Your task to perform on an android device: toggle pop-ups in chrome Image 0: 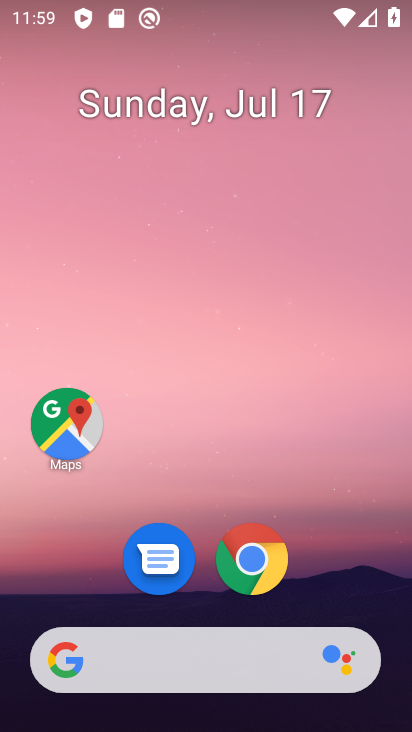
Step 0: click (259, 565)
Your task to perform on an android device: toggle pop-ups in chrome Image 1: 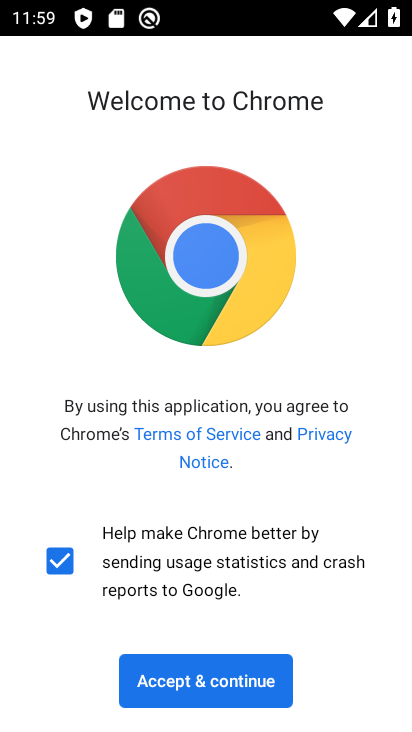
Step 1: click (185, 668)
Your task to perform on an android device: toggle pop-ups in chrome Image 2: 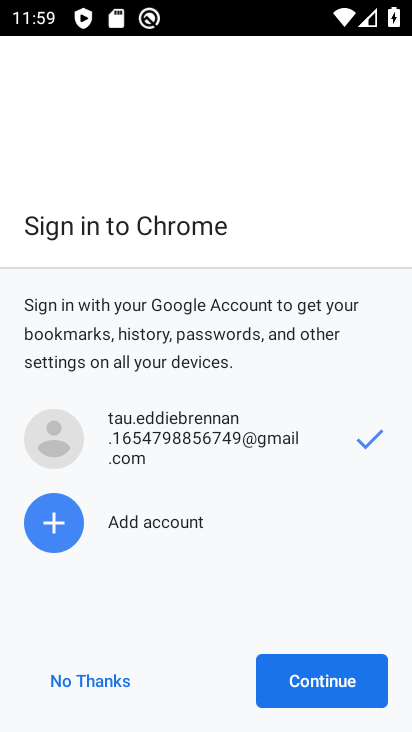
Step 2: click (338, 679)
Your task to perform on an android device: toggle pop-ups in chrome Image 3: 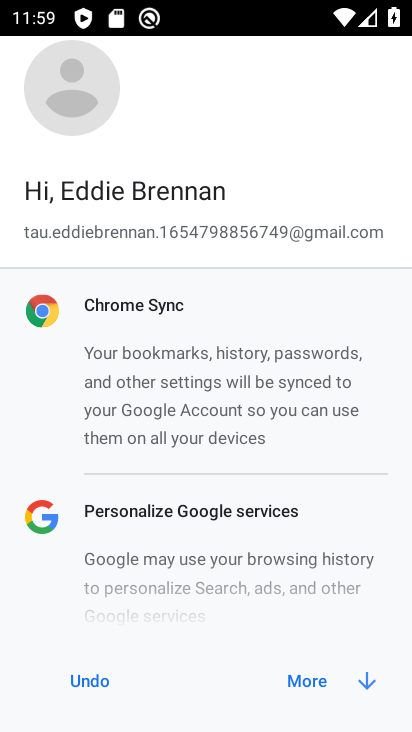
Step 3: click (338, 679)
Your task to perform on an android device: toggle pop-ups in chrome Image 4: 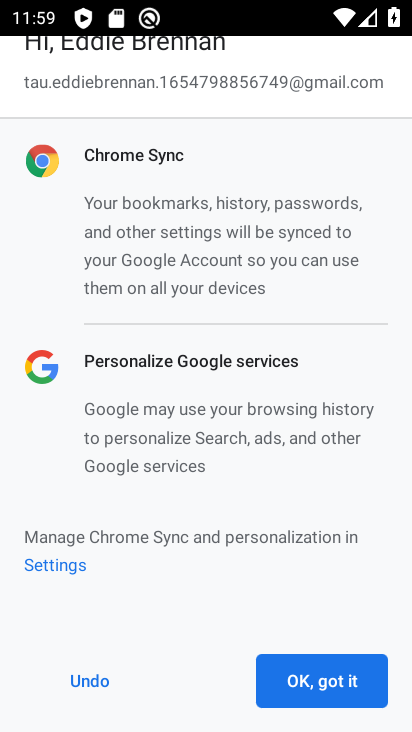
Step 4: click (338, 679)
Your task to perform on an android device: toggle pop-ups in chrome Image 5: 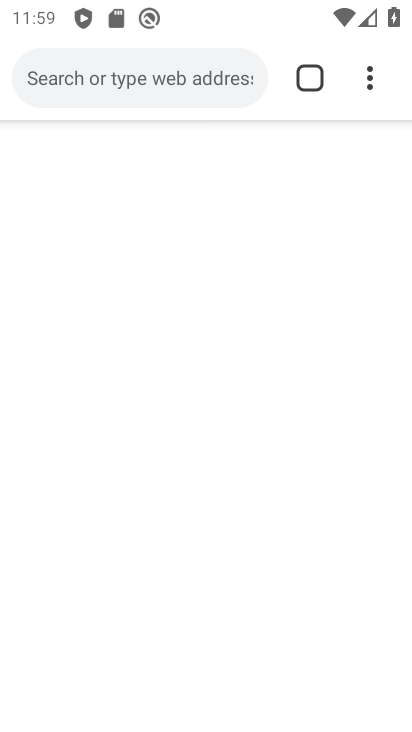
Step 5: drag from (365, 77) to (130, 635)
Your task to perform on an android device: toggle pop-ups in chrome Image 6: 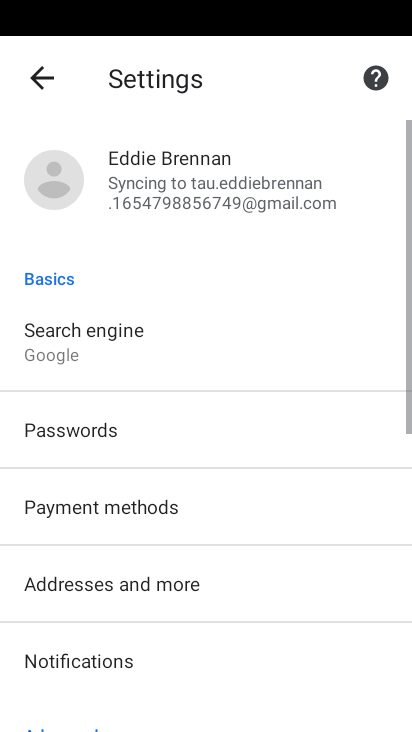
Step 6: drag from (137, 647) to (232, 116)
Your task to perform on an android device: toggle pop-ups in chrome Image 7: 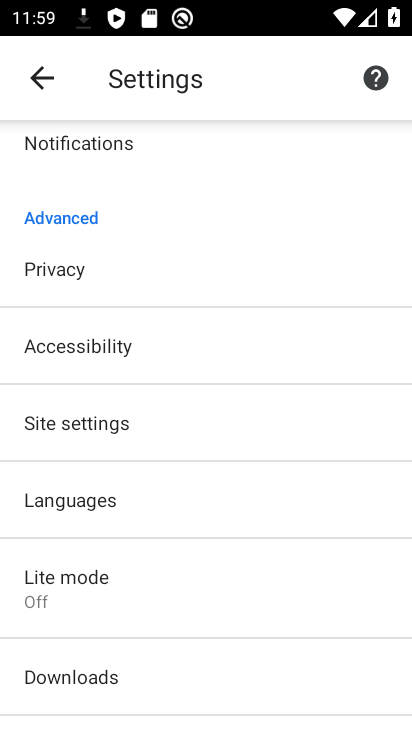
Step 7: click (85, 428)
Your task to perform on an android device: toggle pop-ups in chrome Image 8: 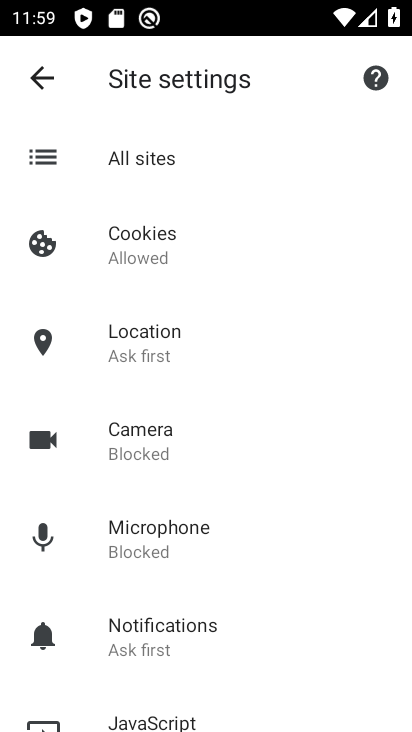
Step 8: drag from (198, 660) to (229, 153)
Your task to perform on an android device: toggle pop-ups in chrome Image 9: 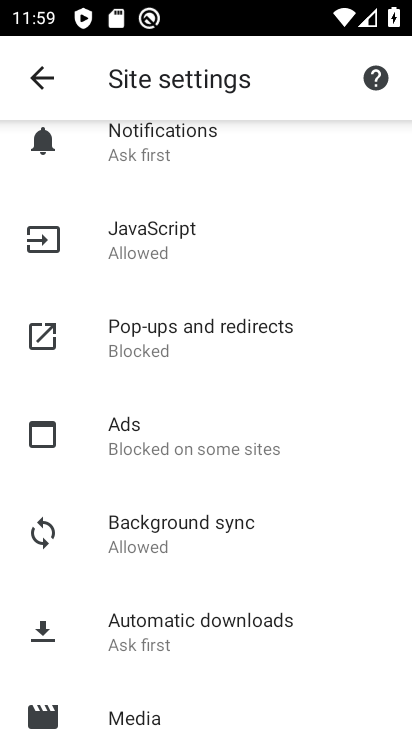
Step 9: click (148, 326)
Your task to perform on an android device: toggle pop-ups in chrome Image 10: 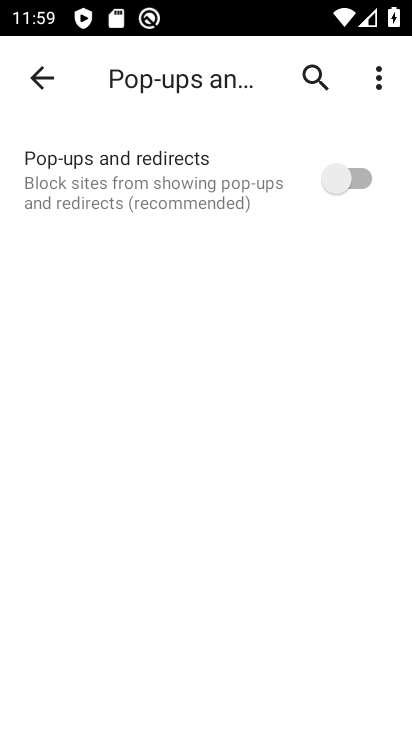
Step 10: click (343, 169)
Your task to perform on an android device: toggle pop-ups in chrome Image 11: 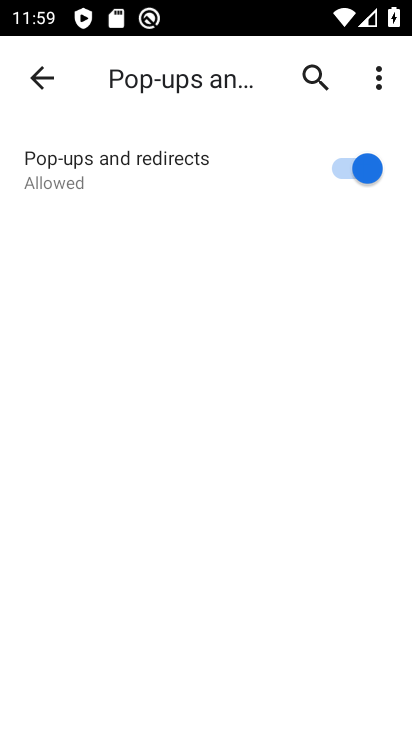
Step 11: task complete